Your task to perform on an android device: Go to display settings Image 0: 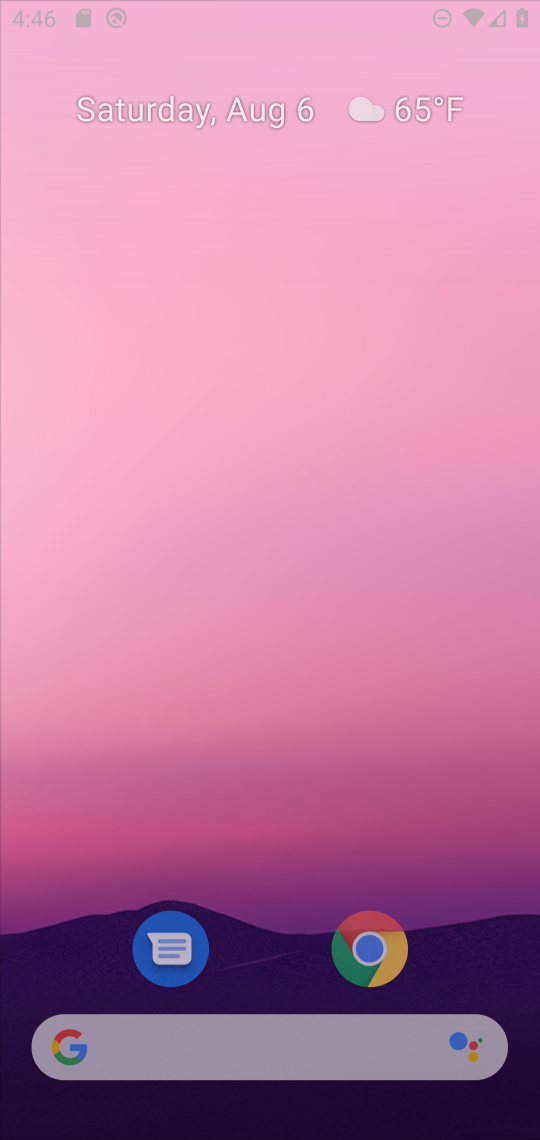
Step 0: press home button
Your task to perform on an android device: Go to display settings Image 1: 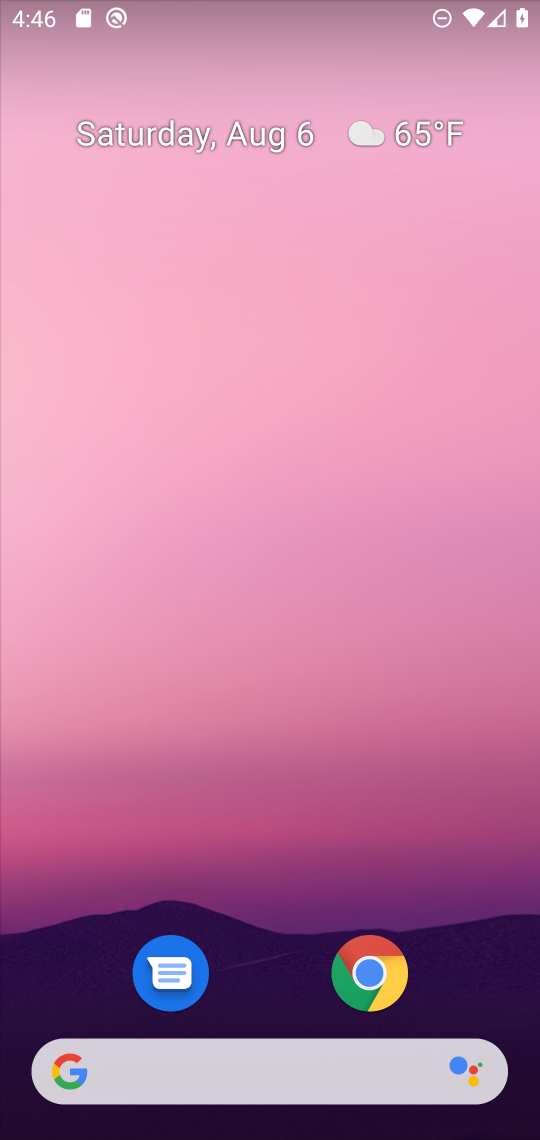
Step 1: drag from (397, 787) to (437, 37)
Your task to perform on an android device: Go to display settings Image 2: 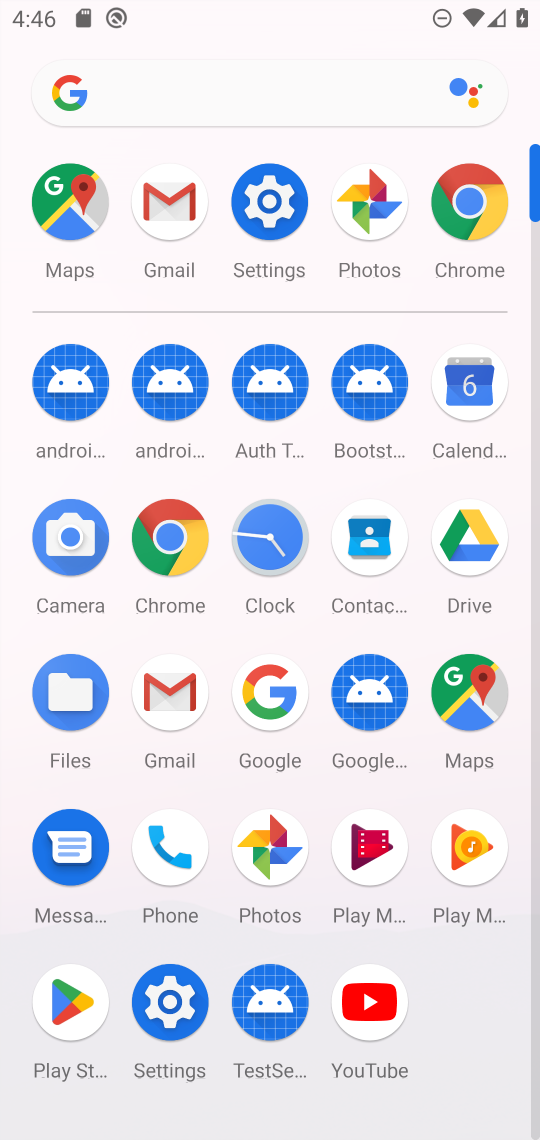
Step 2: click (175, 1016)
Your task to perform on an android device: Go to display settings Image 3: 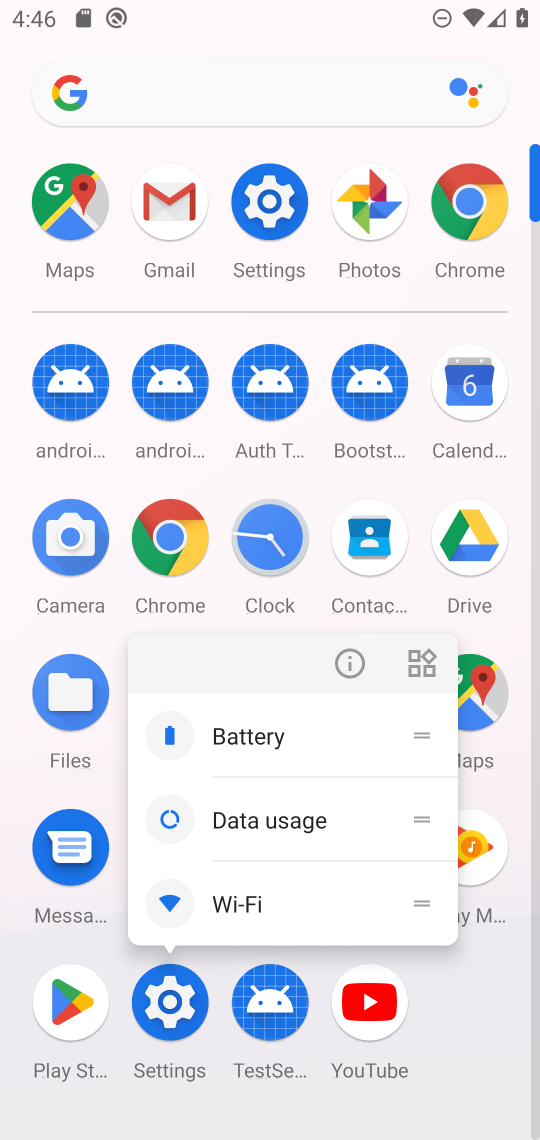
Step 3: click (179, 1001)
Your task to perform on an android device: Go to display settings Image 4: 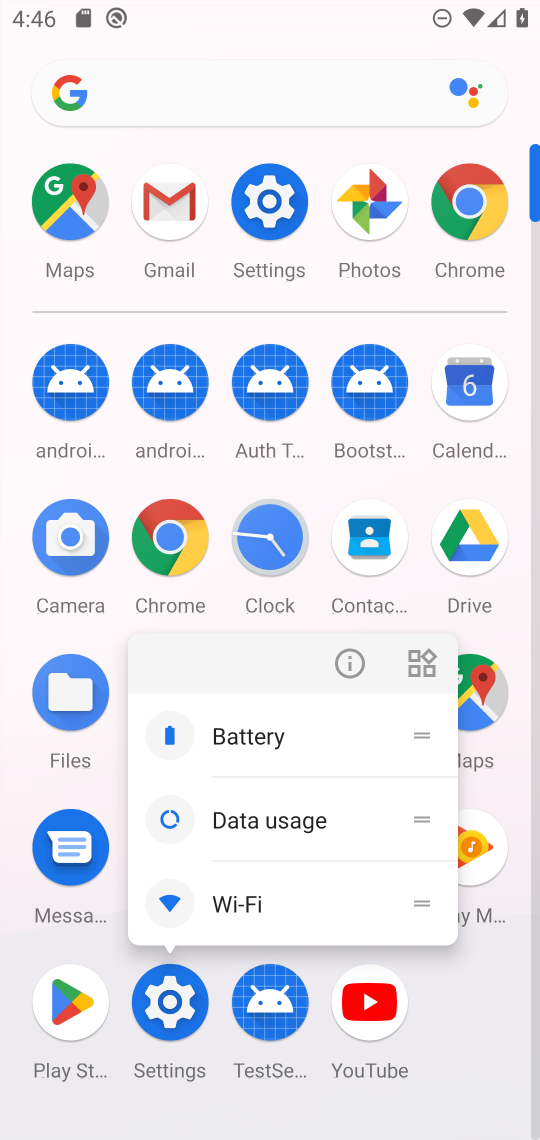
Step 4: click (172, 1001)
Your task to perform on an android device: Go to display settings Image 5: 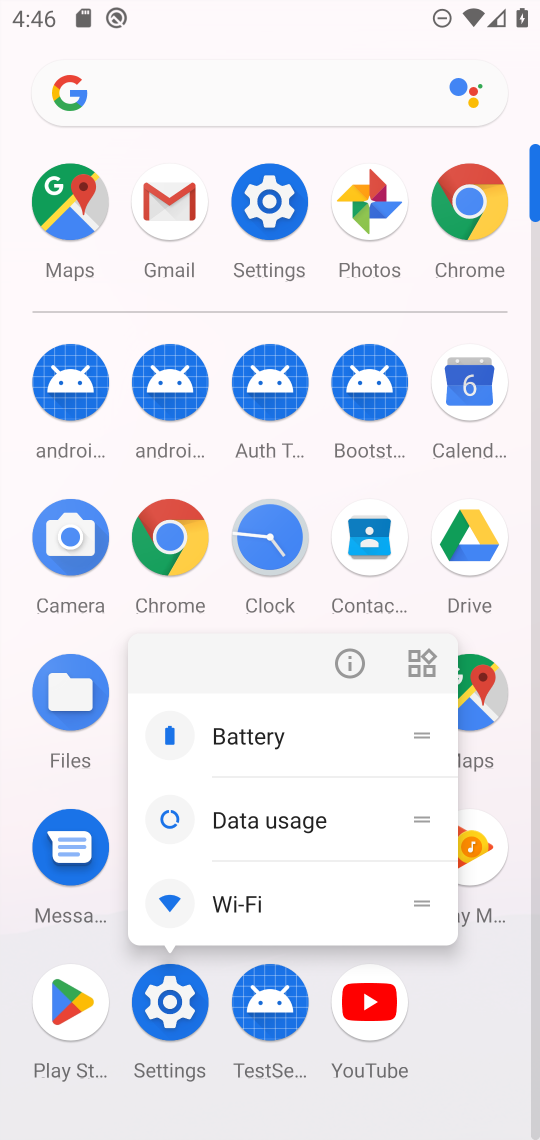
Step 5: click (160, 1001)
Your task to perform on an android device: Go to display settings Image 6: 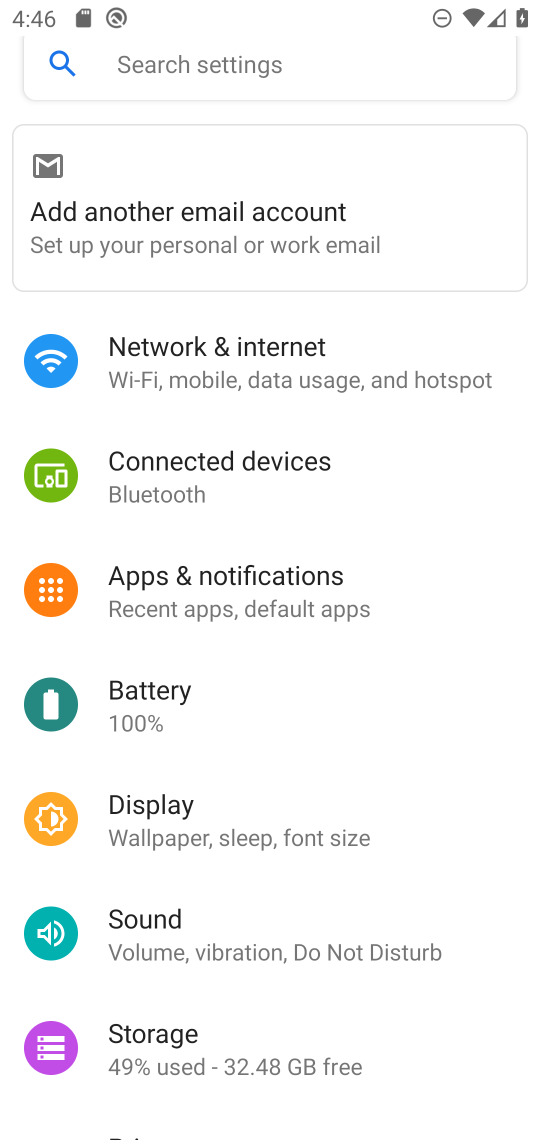
Step 6: click (129, 827)
Your task to perform on an android device: Go to display settings Image 7: 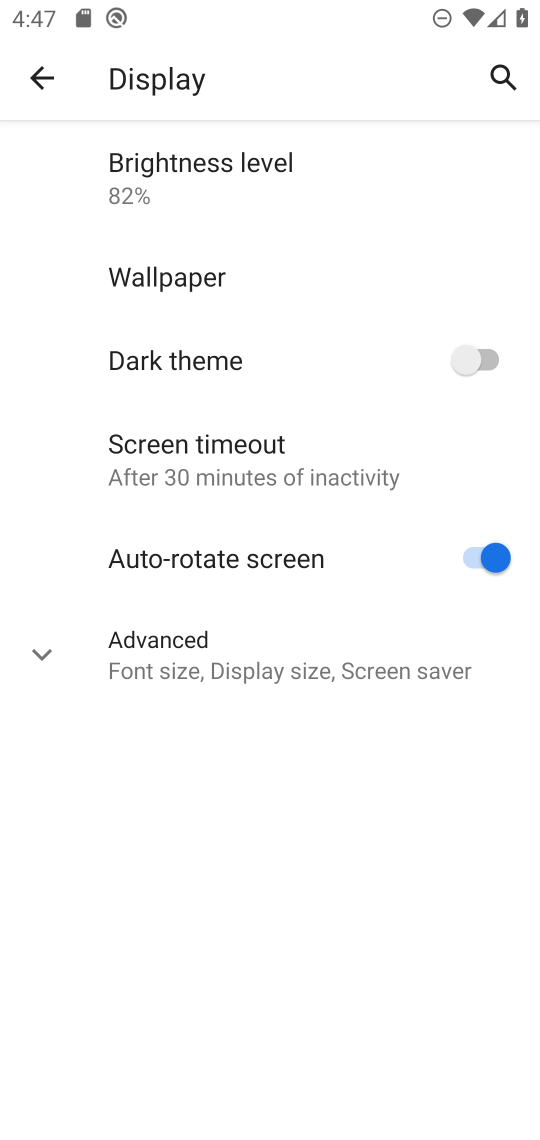
Step 7: task complete